Your task to perform on an android device: change timer sound Image 0: 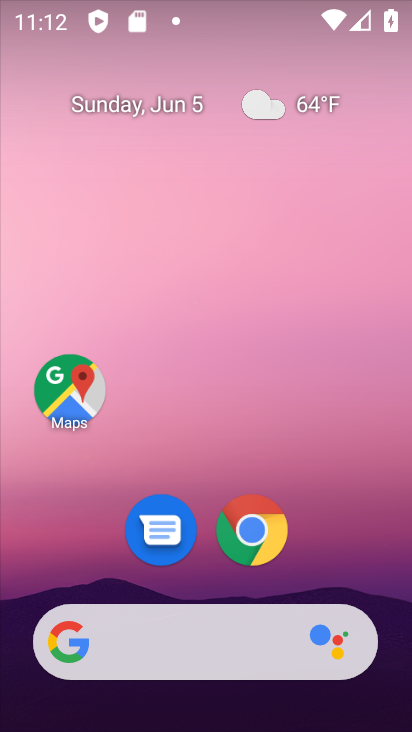
Step 0: drag from (317, 400) to (303, 3)
Your task to perform on an android device: change timer sound Image 1: 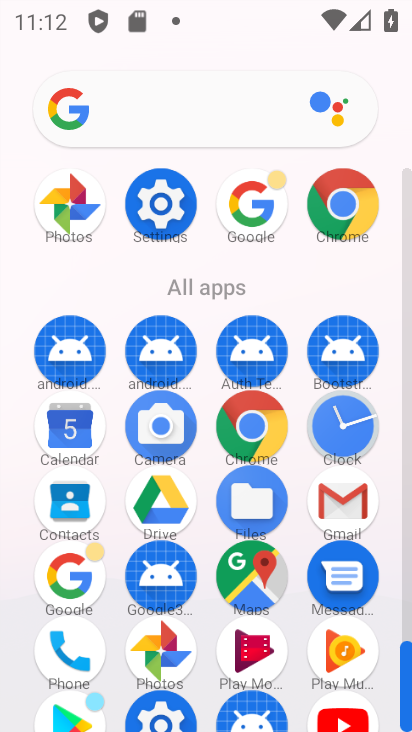
Step 1: click (359, 414)
Your task to perform on an android device: change timer sound Image 2: 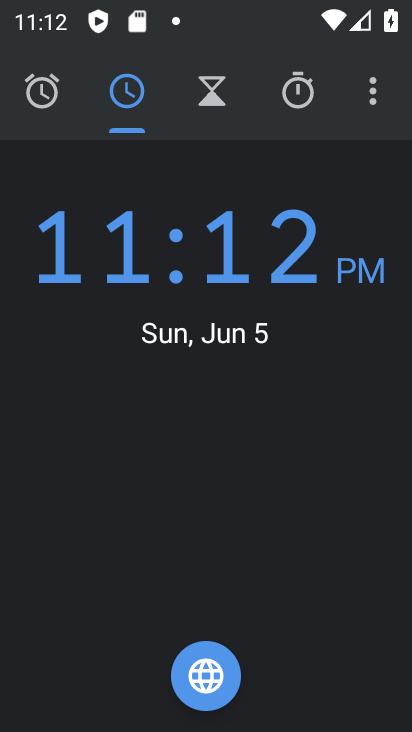
Step 2: click (382, 80)
Your task to perform on an android device: change timer sound Image 3: 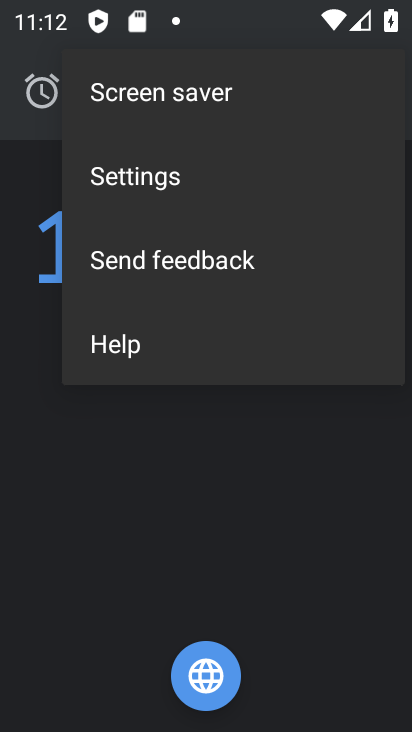
Step 3: click (145, 192)
Your task to perform on an android device: change timer sound Image 4: 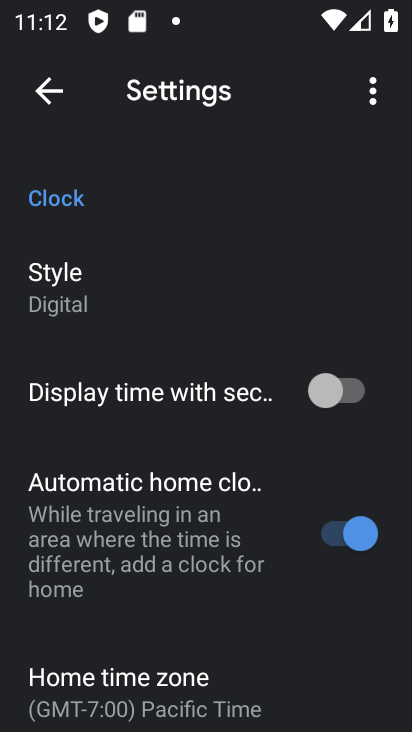
Step 4: drag from (142, 625) to (182, 258)
Your task to perform on an android device: change timer sound Image 5: 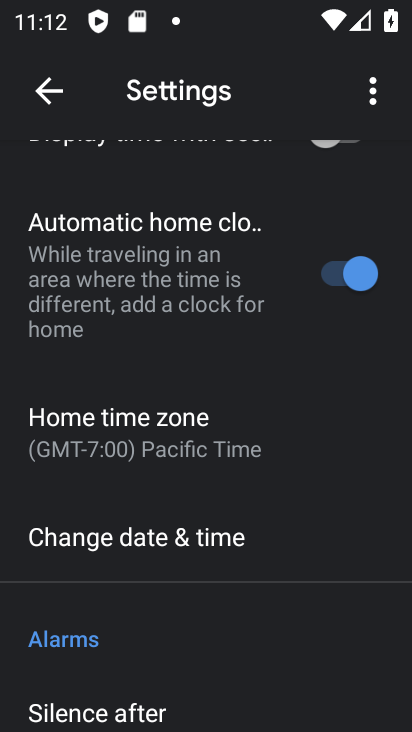
Step 5: click (127, 137)
Your task to perform on an android device: change timer sound Image 6: 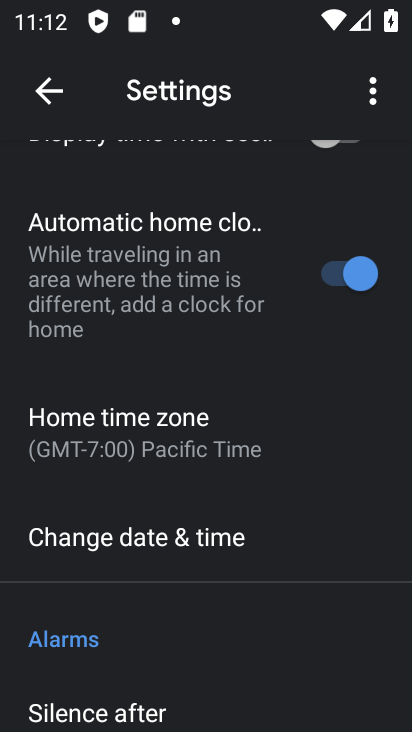
Step 6: drag from (290, 630) to (341, 221)
Your task to perform on an android device: change timer sound Image 7: 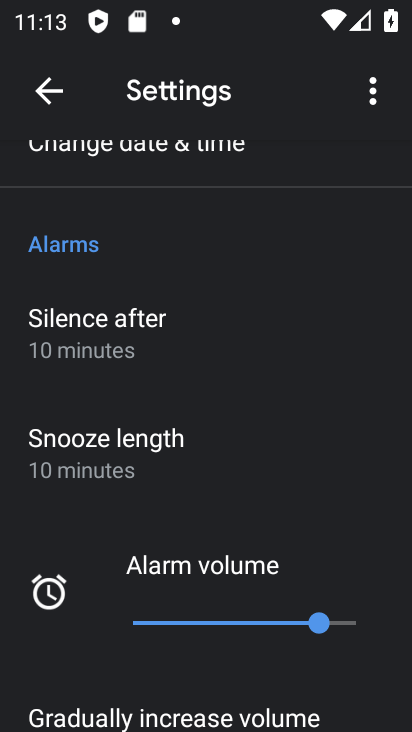
Step 7: drag from (209, 643) to (277, 255)
Your task to perform on an android device: change timer sound Image 8: 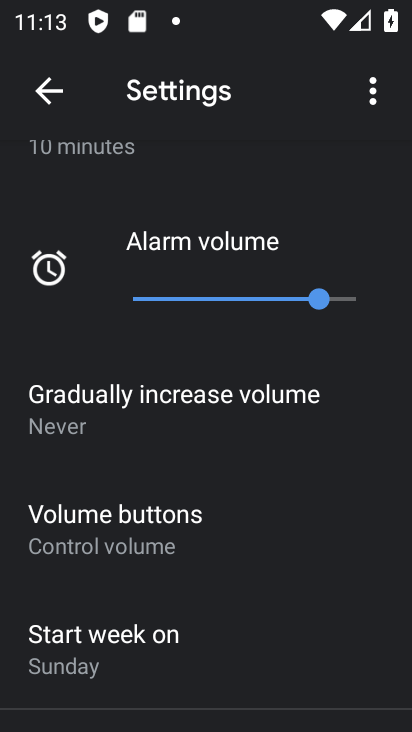
Step 8: drag from (185, 600) to (308, 246)
Your task to perform on an android device: change timer sound Image 9: 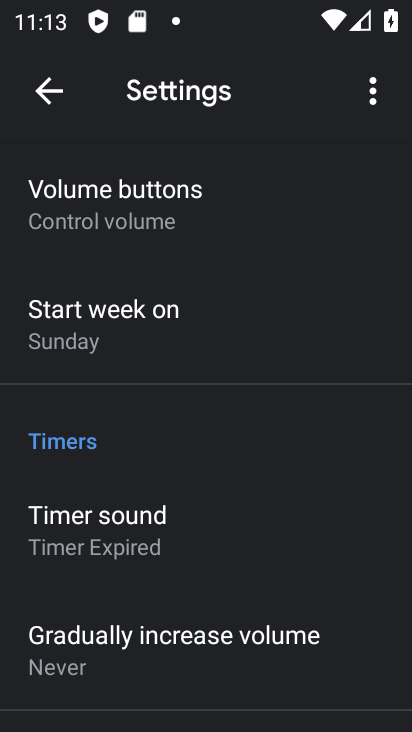
Step 9: click (116, 530)
Your task to perform on an android device: change timer sound Image 10: 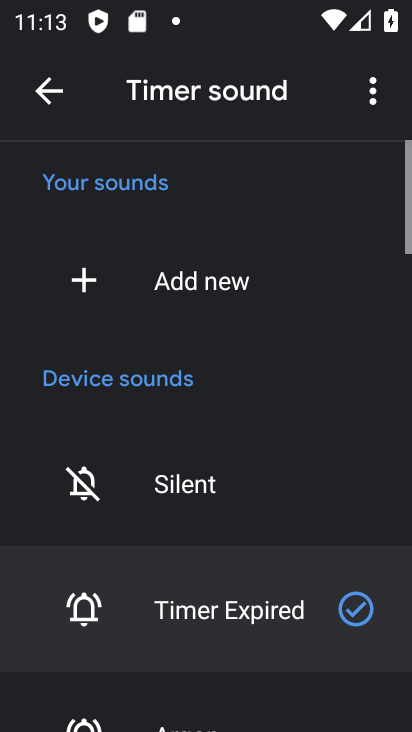
Step 10: drag from (168, 557) to (243, 194)
Your task to perform on an android device: change timer sound Image 11: 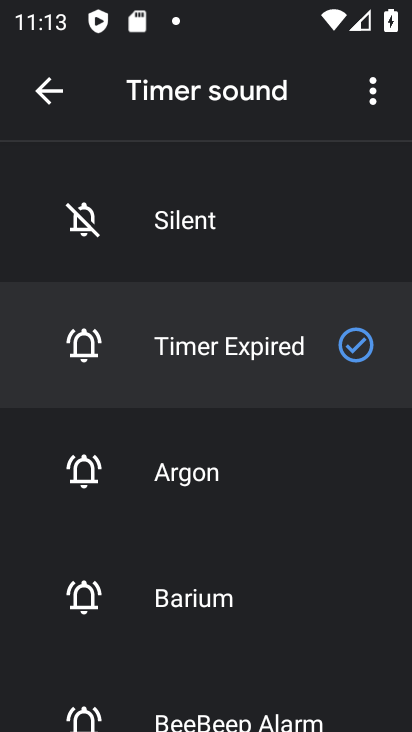
Step 11: click (177, 469)
Your task to perform on an android device: change timer sound Image 12: 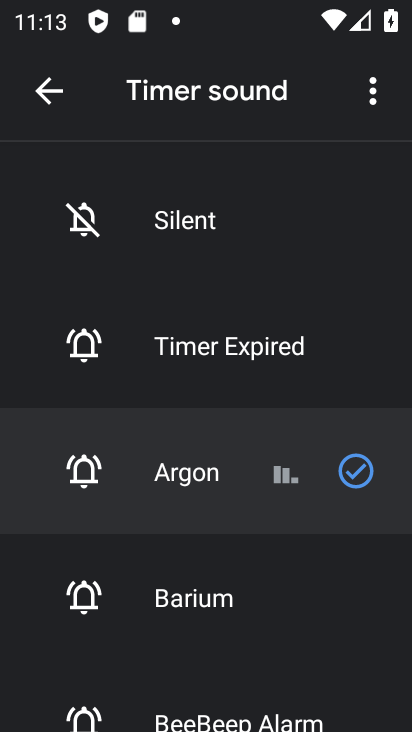
Step 12: task complete